Your task to perform on an android device: View the shopping cart on amazon.com. Search for panasonic triple a on amazon.com, select the first entry, and add it to the cart. Image 0: 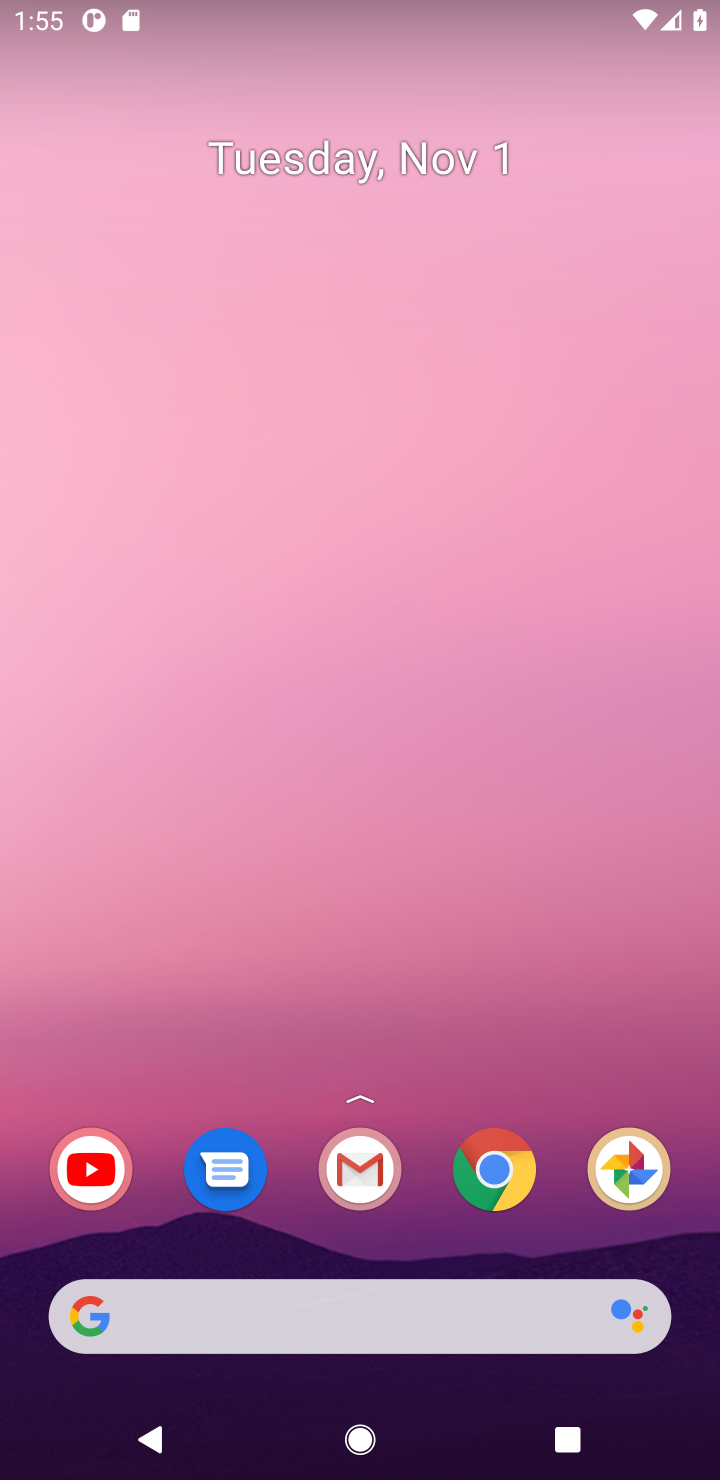
Step 0: press home button
Your task to perform on an android device: View the shopping cart on amazon.com. Search for panasonic triple a on amazon.com, select the first entry, and add it to the cart. Image 1: 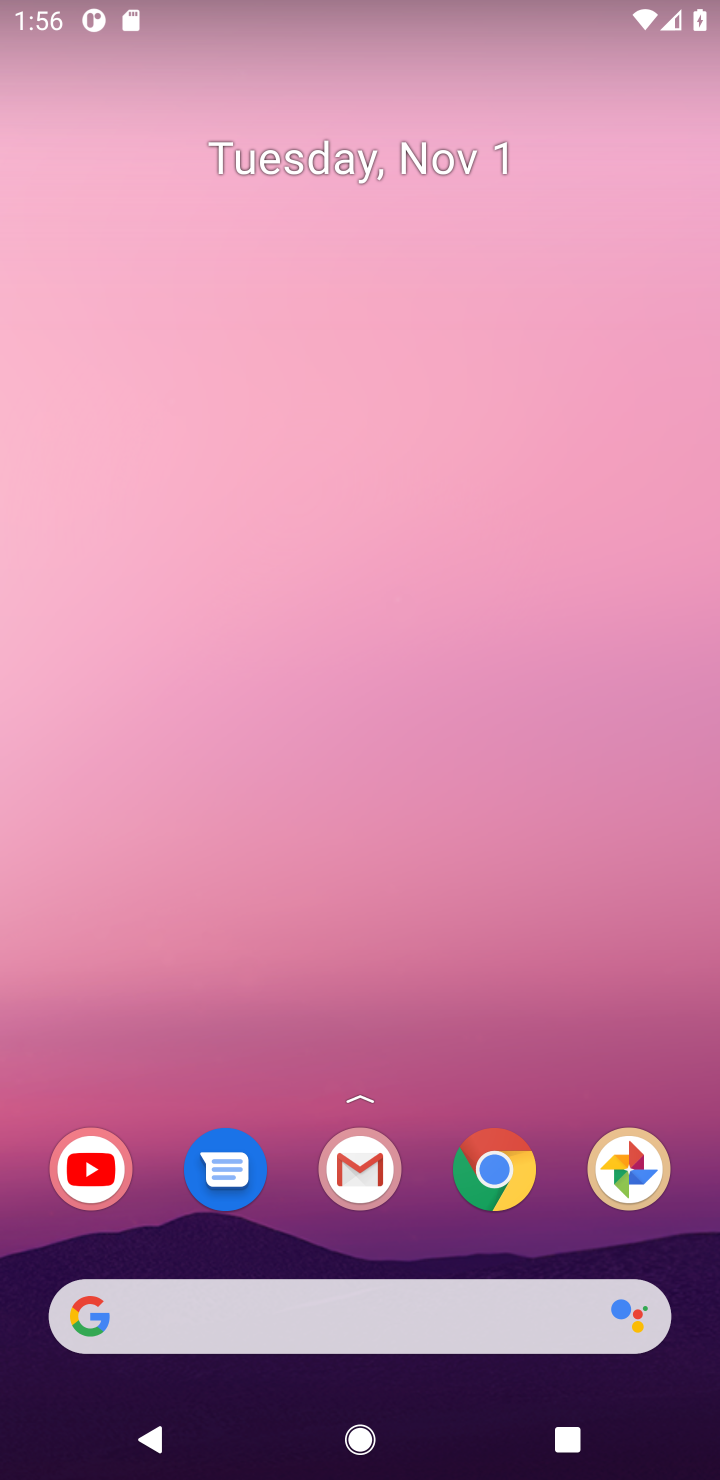
Step 1: drag from (438, 1099) to (422, 284)
Your task to perform on an android device: View the shopping cart on amazon.com. Search for panasonic triple a on amazon.com, select the first entry, and add it to the cart. Image 2: 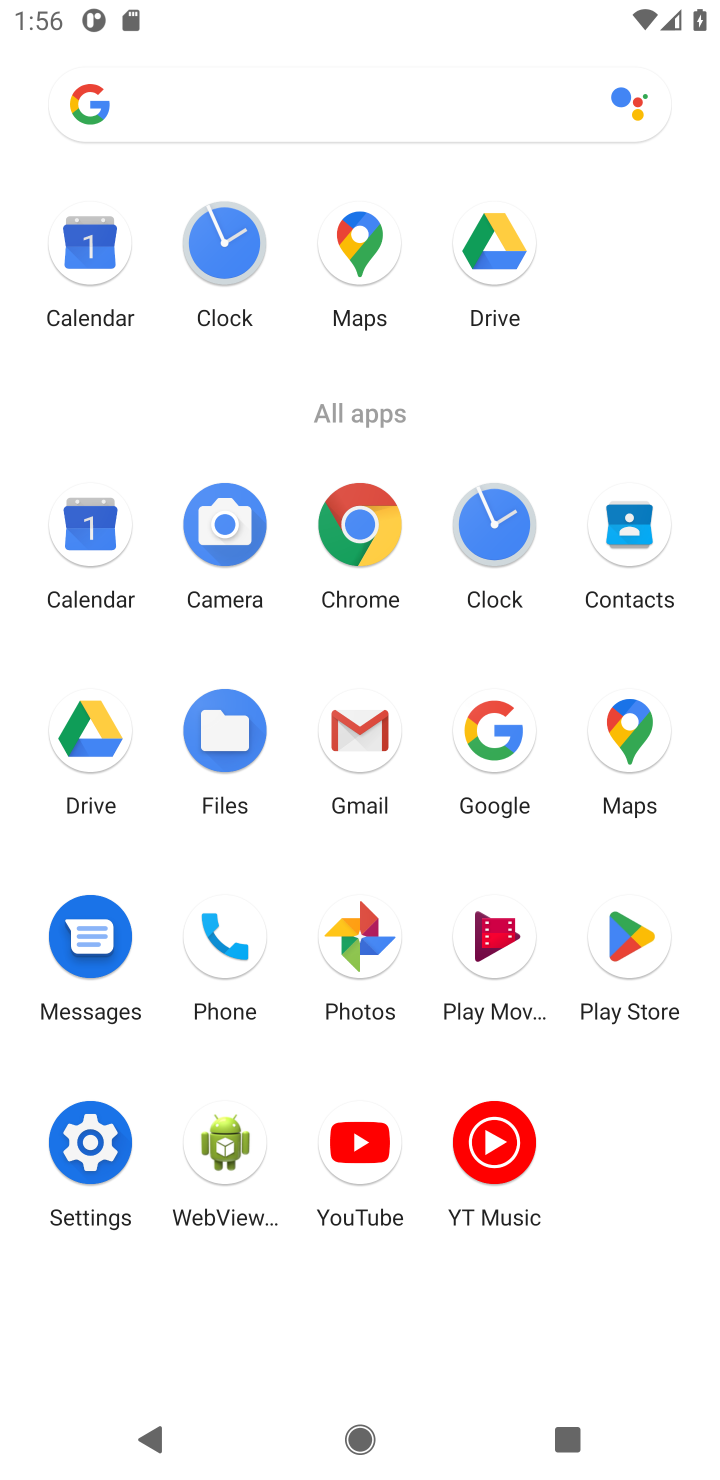
Step 2: click (352, 516)
Your task to perform on an android device: View the shopping cart on amazon.com. Search for panasonic triple a on amazon.com, select the first entry, and add it to the cart. Image 3: 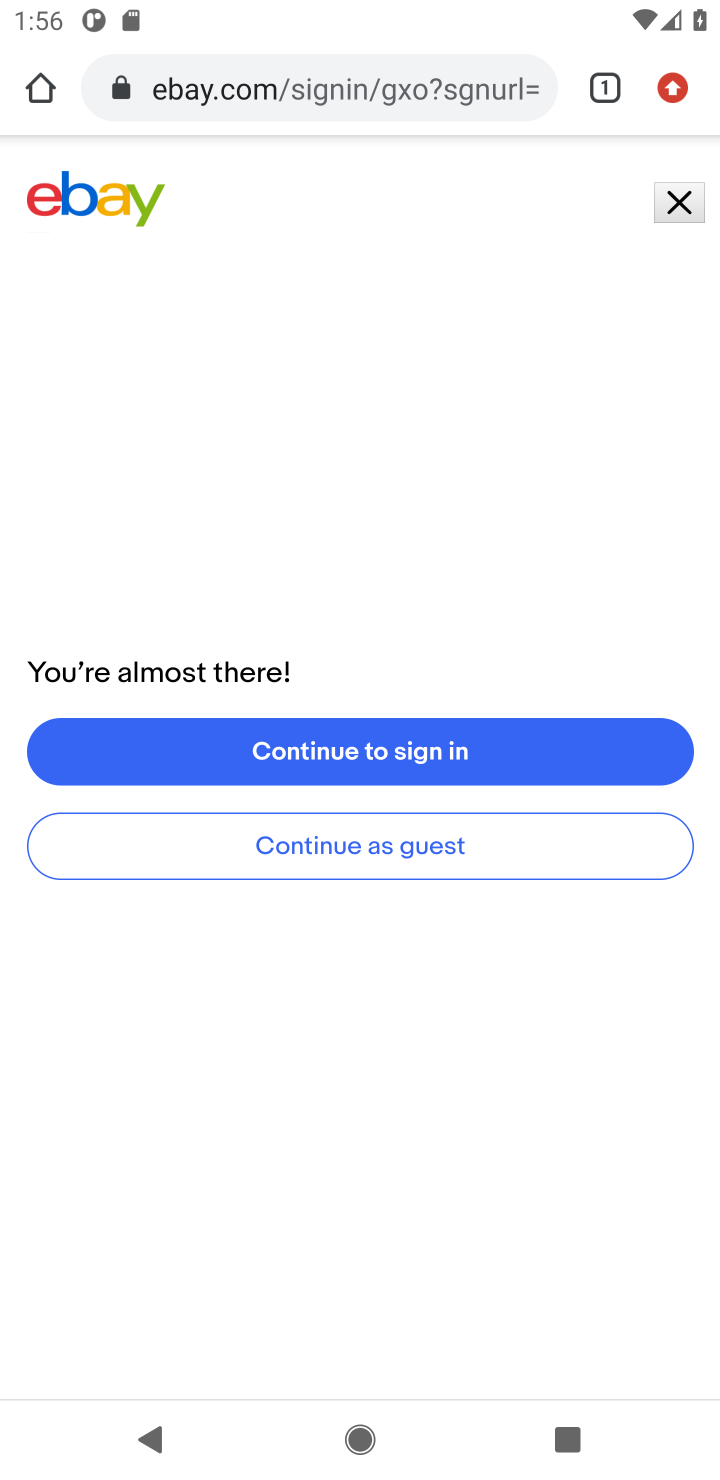
Step 3: click (222, 80)
Your task to perform on an android device: View the shopping cart on amazon.com. Search for panasonic triple a on amazon.com, select the first entry, and add it to the cart. Image 4: 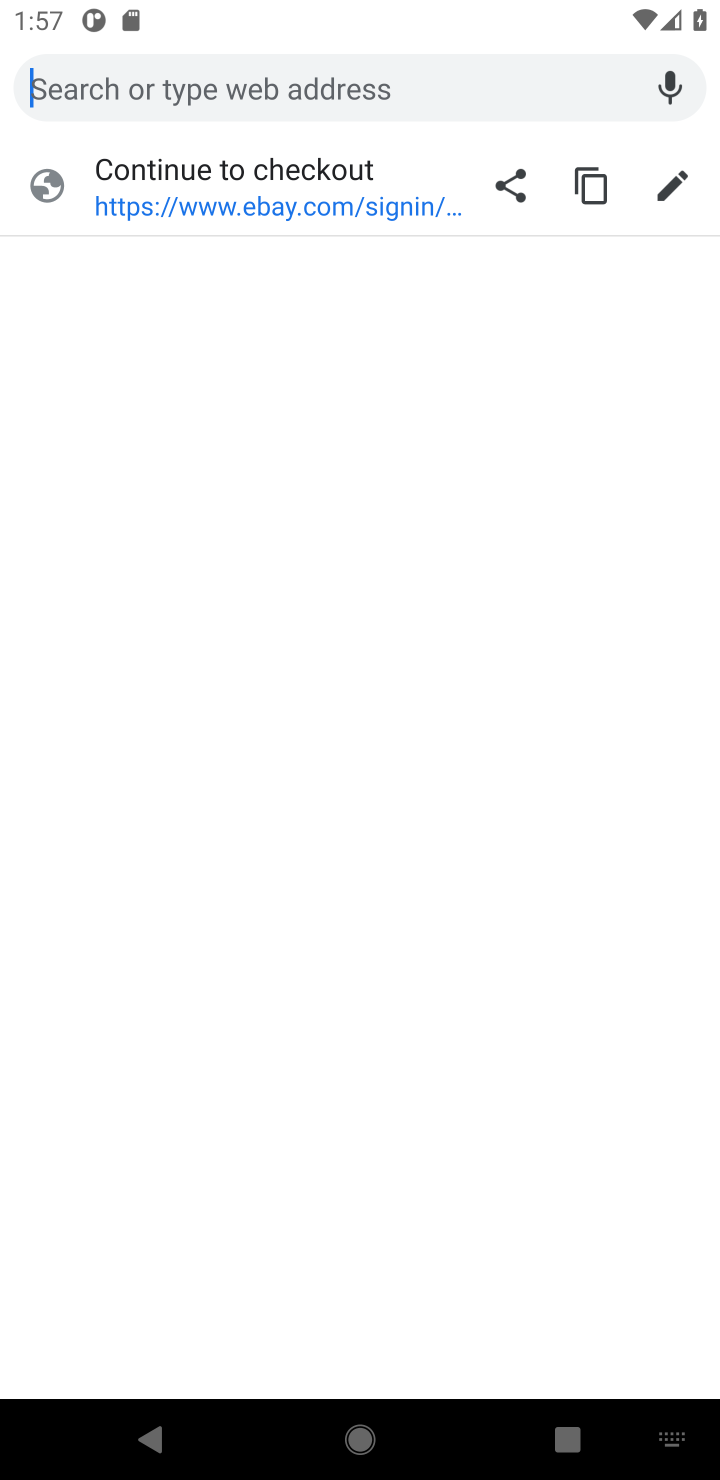
Step 4: type "amazon"
Your task to perform on an android device: View the shopping cart on amazon.com. Search for panasonic triple a on amazon.com, select the first entry, and add it to the cart. Image 5: 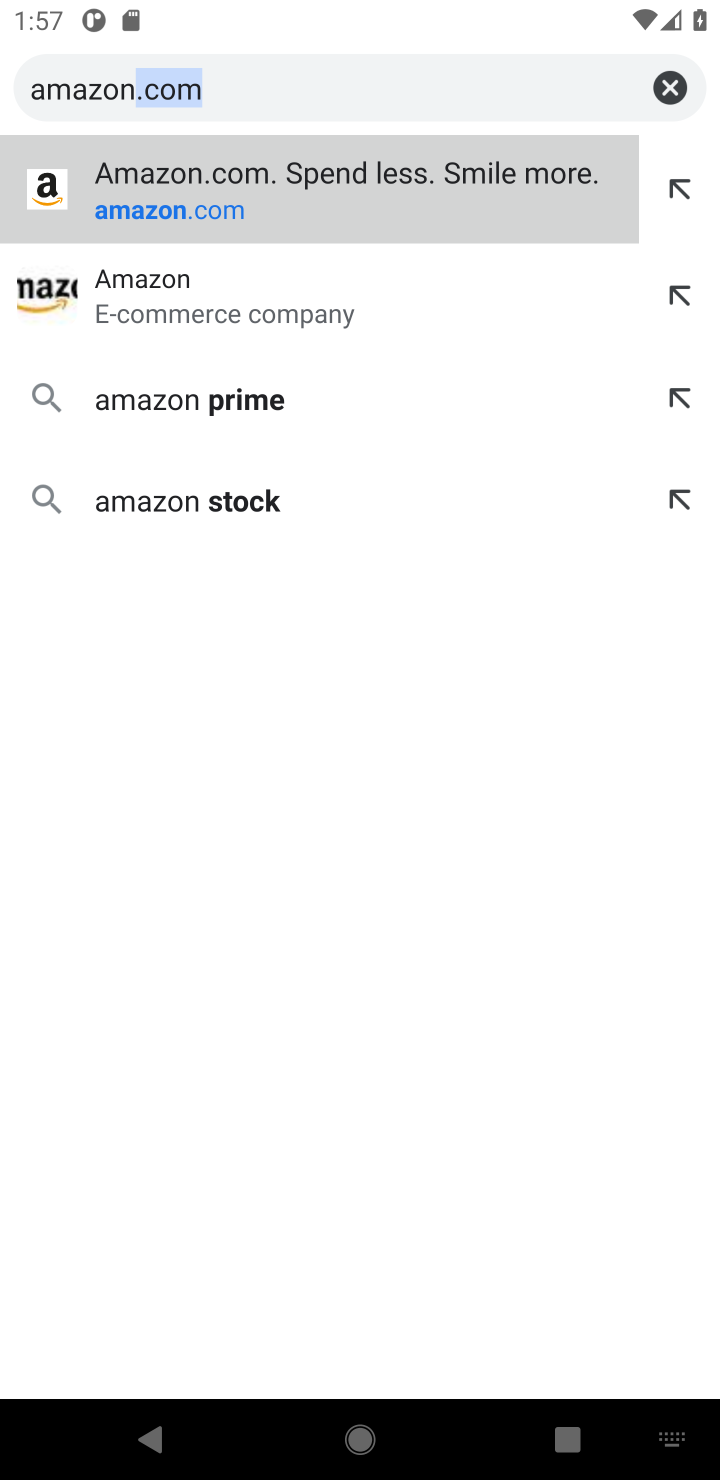
Step 5: click (161, 290)
Your task to perform on an android device: View the shopping cart on amazon.com. Search for panasonic triple a on amazon.com, select the first entry, and add it to the cart. Image 6: 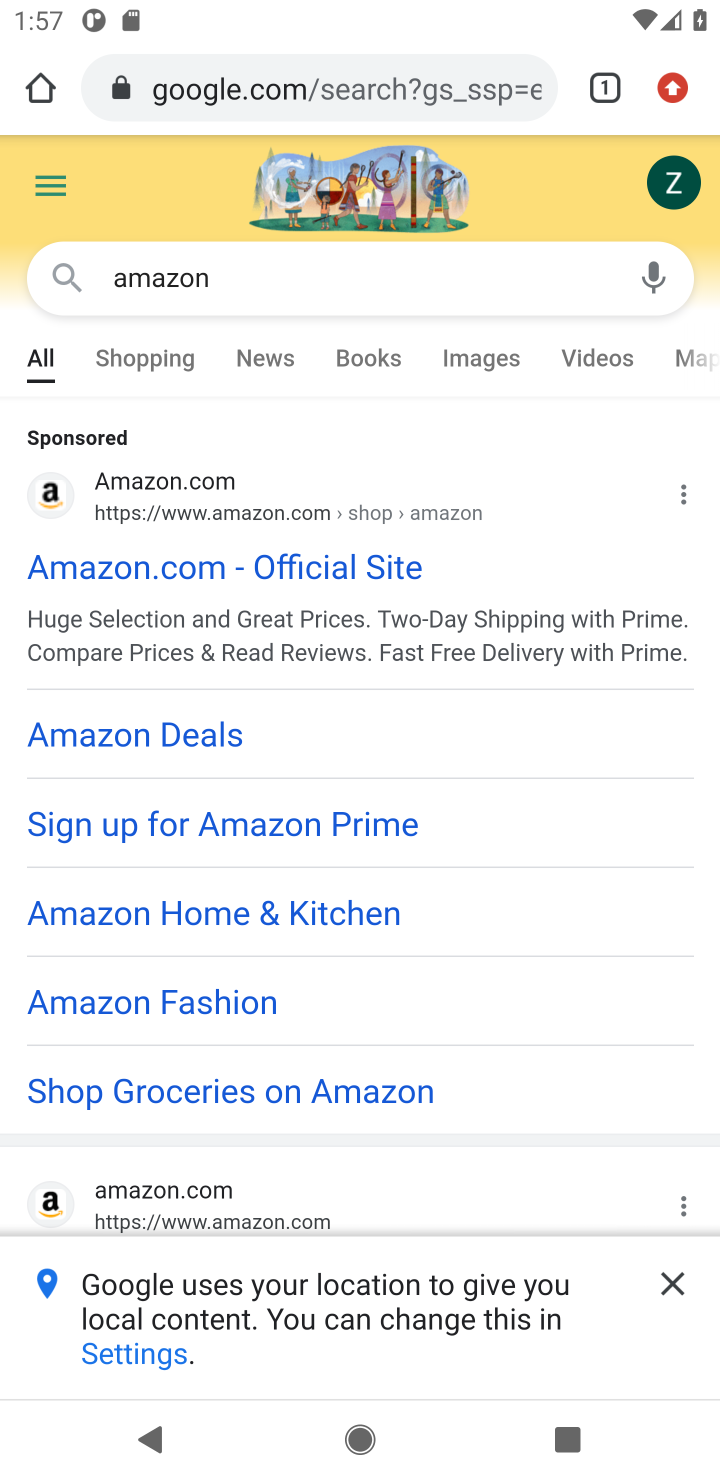
Step 6: click (172, 571)
Your task to perform on an android device: View the shopping cart on amazon.com. Search for panasonic triple a on amazon.com, select the first entry, and add it to the cart. Image 7: 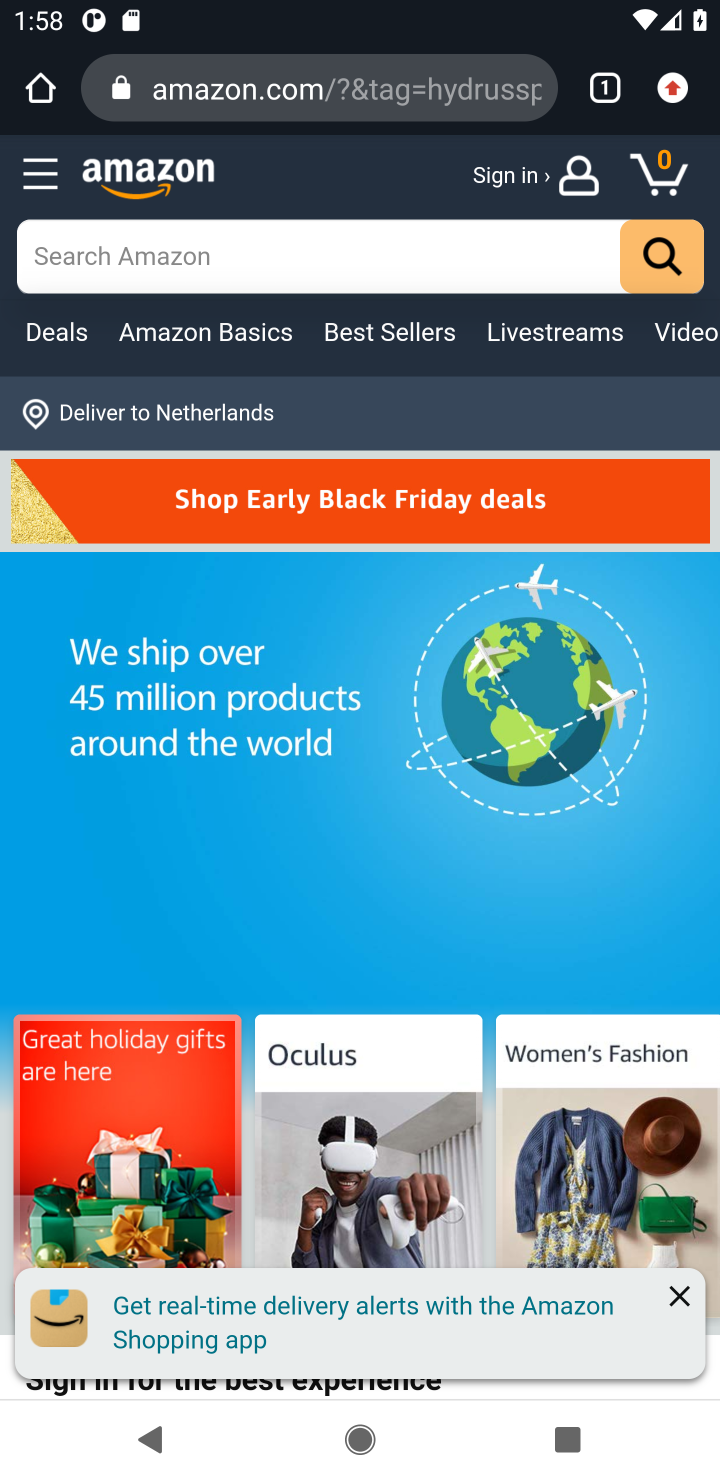
Step 7: click (209, 253)
Your task to perform on an android device: View the shopping cart on amazon.com. Search for panasonic triple a on amazon.com, select the first entry, and add it to the cart. Image 8: 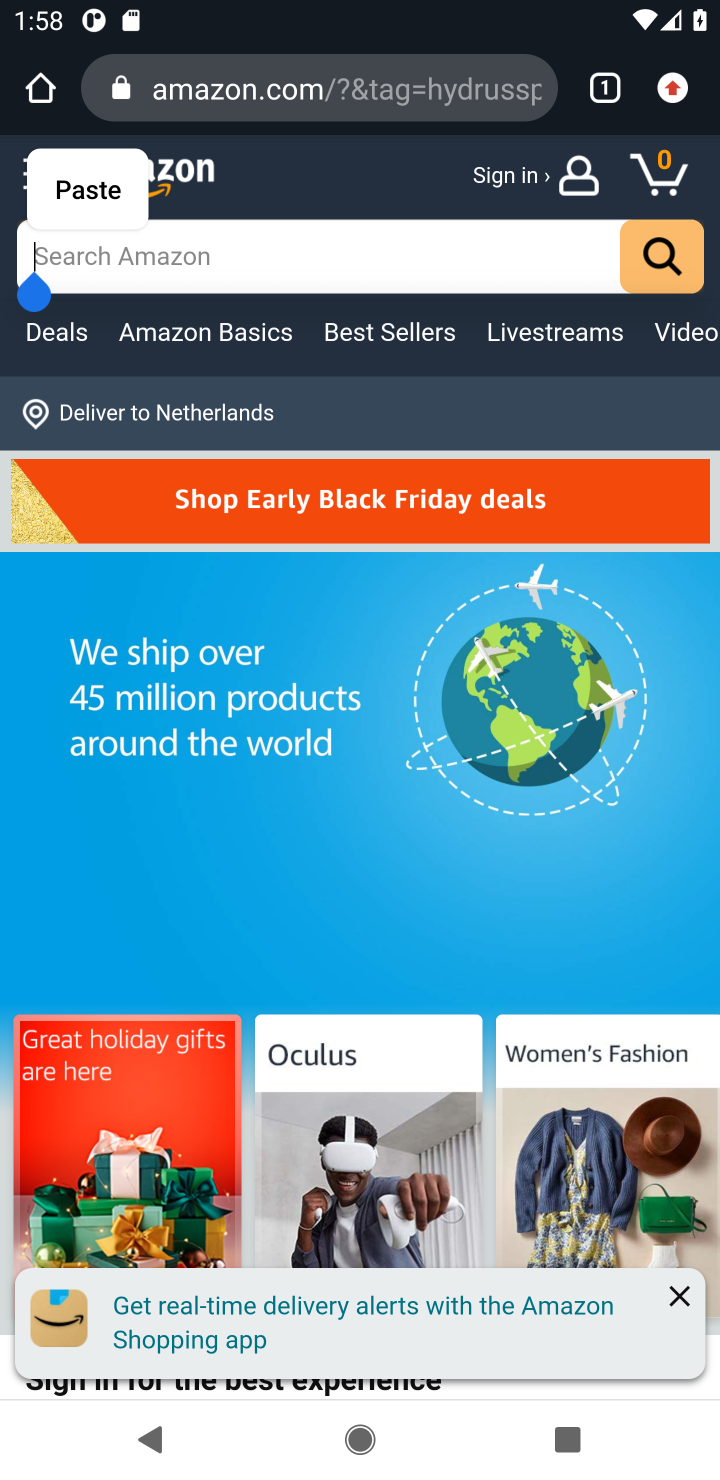
Step 8: type "panasonic triple a"
Your task to perform on an android device: View the shopping cart on amazon.com. Search for panasonic triple a on amazon.com, select the first entry, and add it to the cart. Image 9: 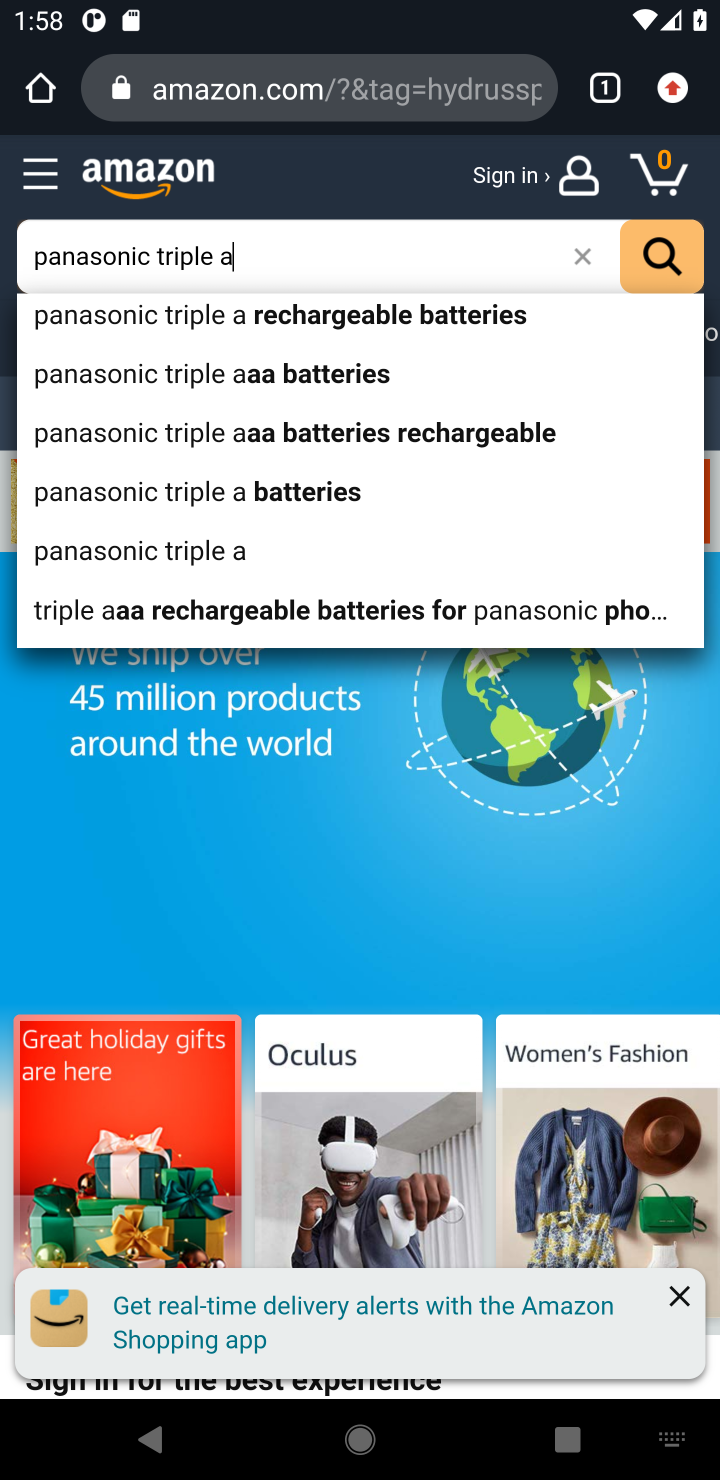
Step 9: click (245, 324)
Your task to perform on an android device: View the shopping cart on amazon.com. Search for panasonic triple a on amazon.com, select the first entry, and add it to the cart. Image 10: 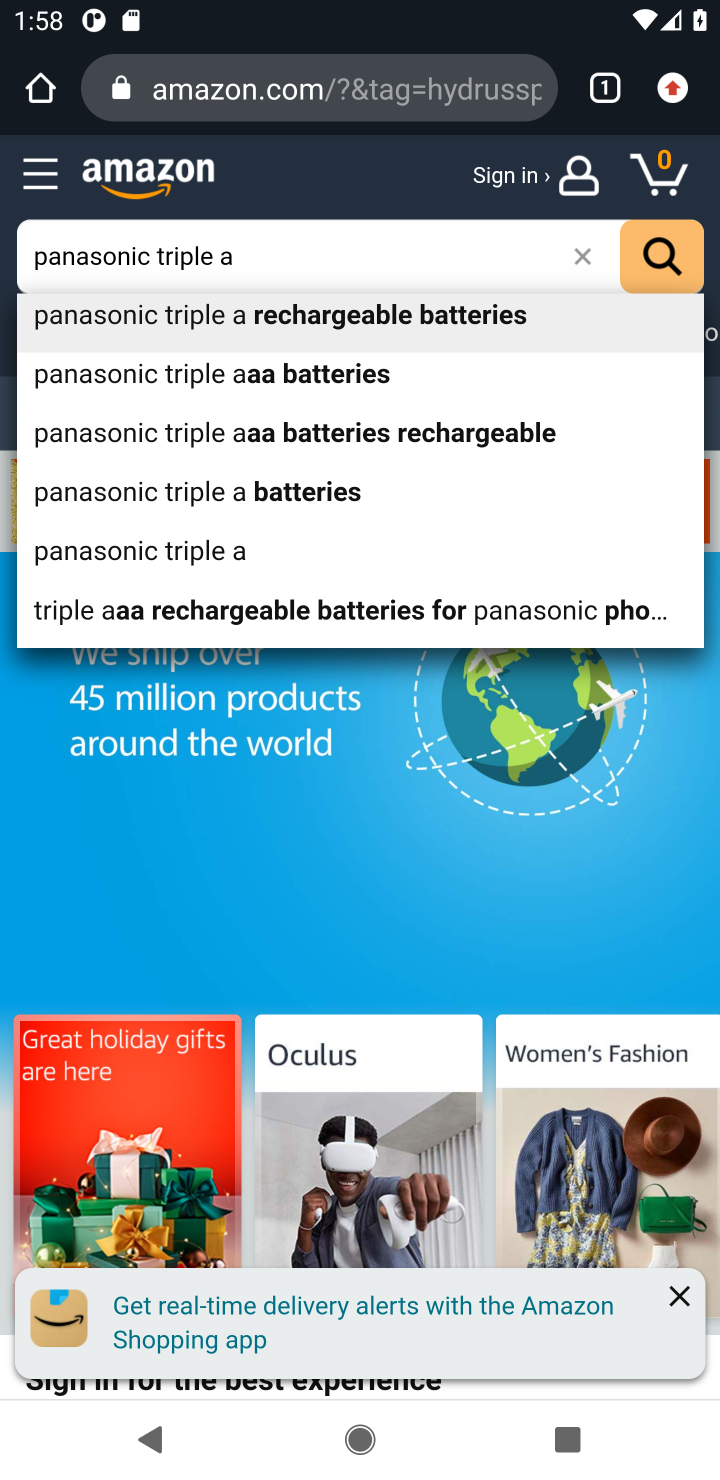
Step 10: click (193, 314)
Your task to perform on an android device: View the shopping cart on amazon.com. Search for panasonic triple a on amazon.com, select the first entry, and add it to the cart. Image 11: 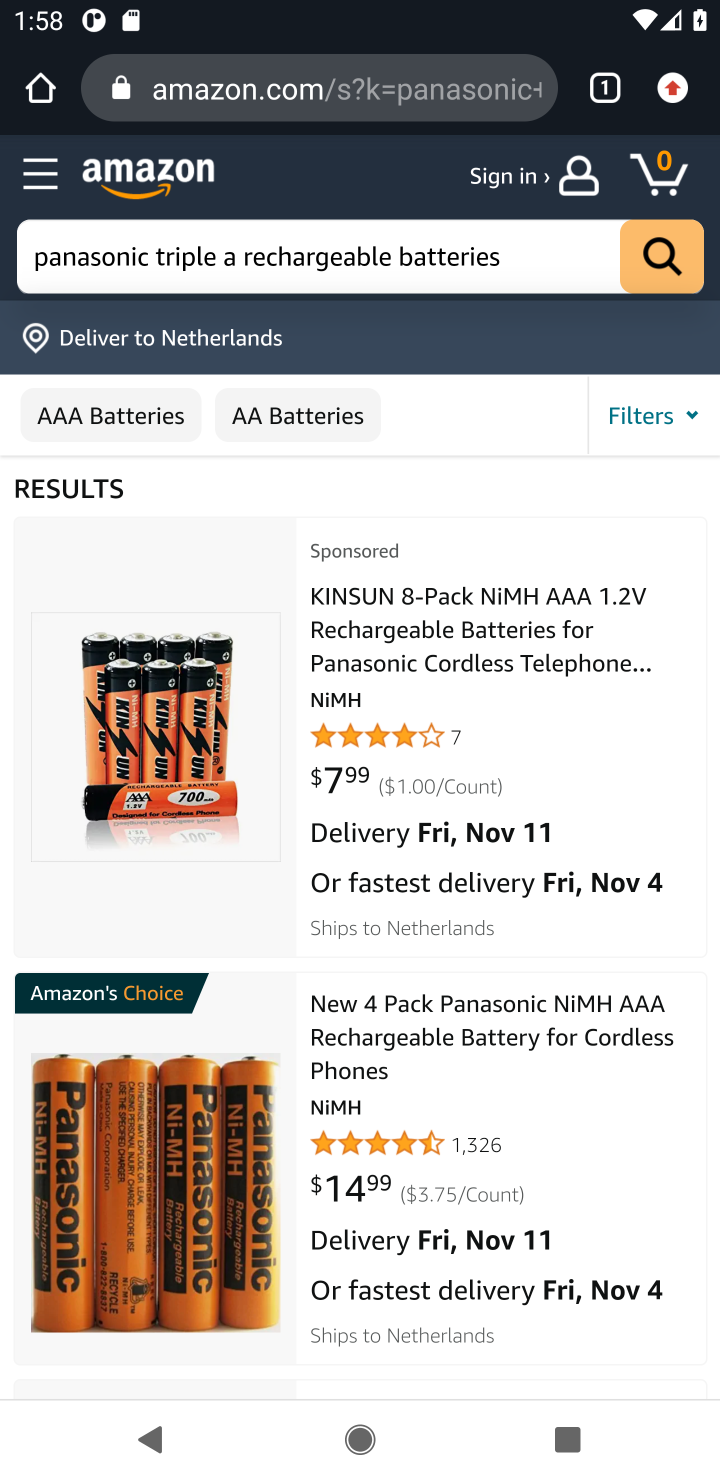
Step 11: click (405, 623)
Your task to perform on an android device: View the shopping cart on amazon.com. Search for panasonic triple a on amazon.com, select the first entry, and add it to the cart. Image 12: 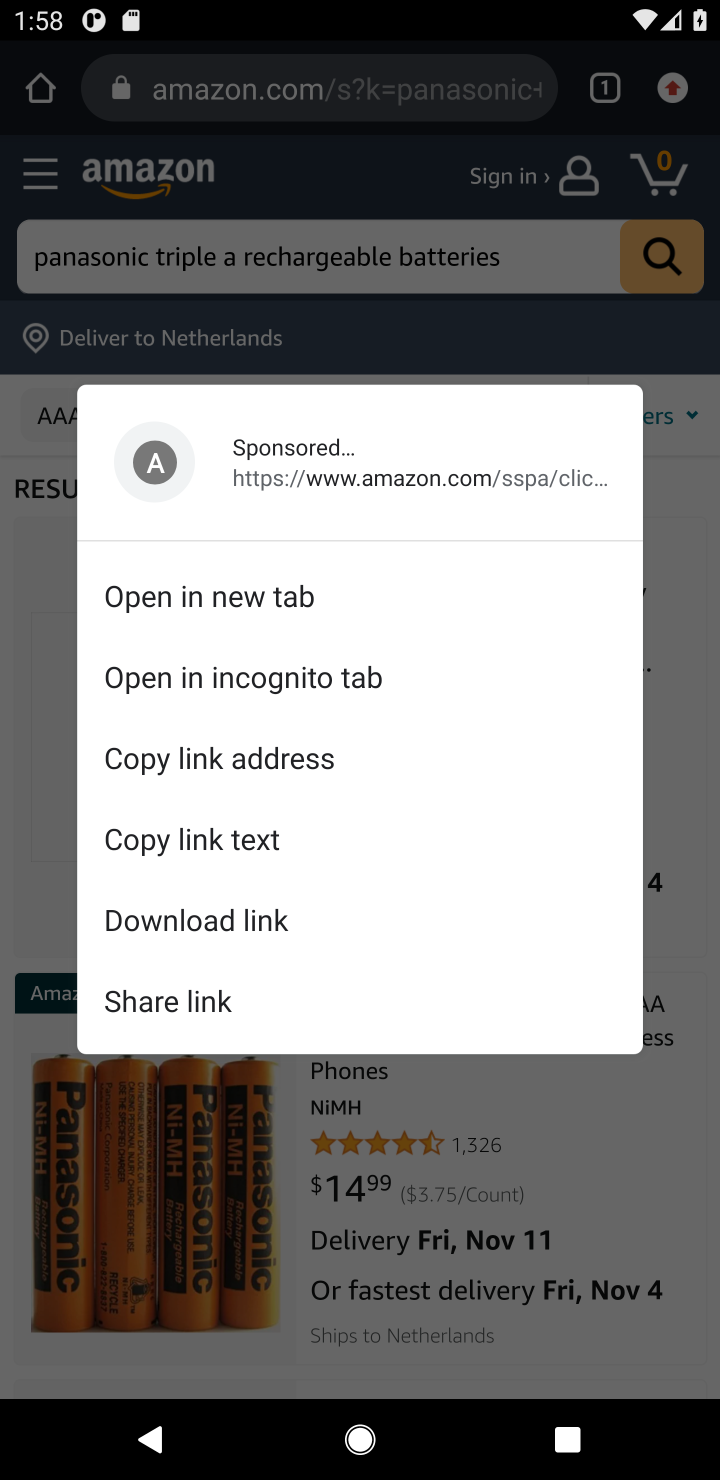
Step 12: click (29, 820)
Your task to perform on an android device: View the shopping cart on amazon.com. Search for panasonic triple a on amazon.com, select the first entry, and add it to the cart. Image 13: 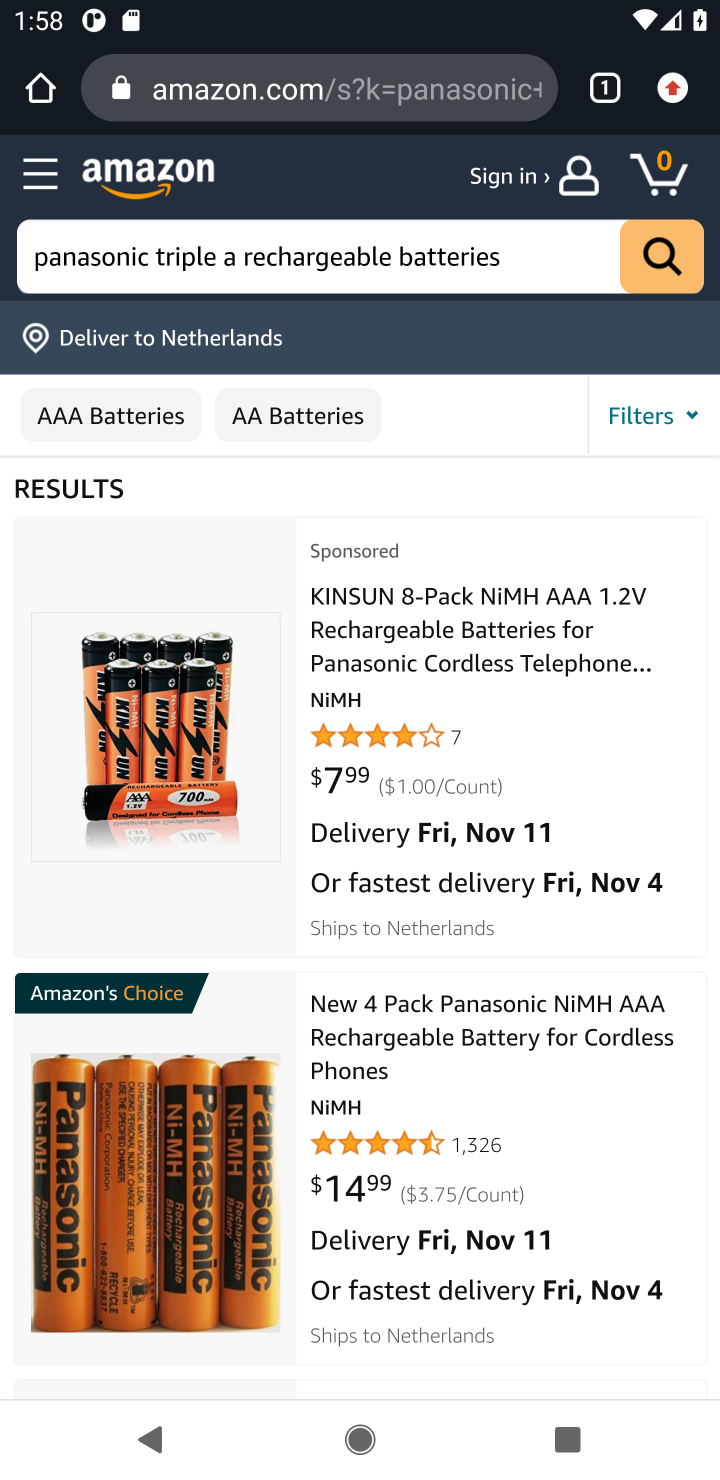
Step 13: drag from (293, 1279) to (337, 561)
Your task to perform on an android device: View the shopping cart on amazon.com. Search for panasonic triple a on amazon.com, select the first entry, and add it to the cart. Image 14: 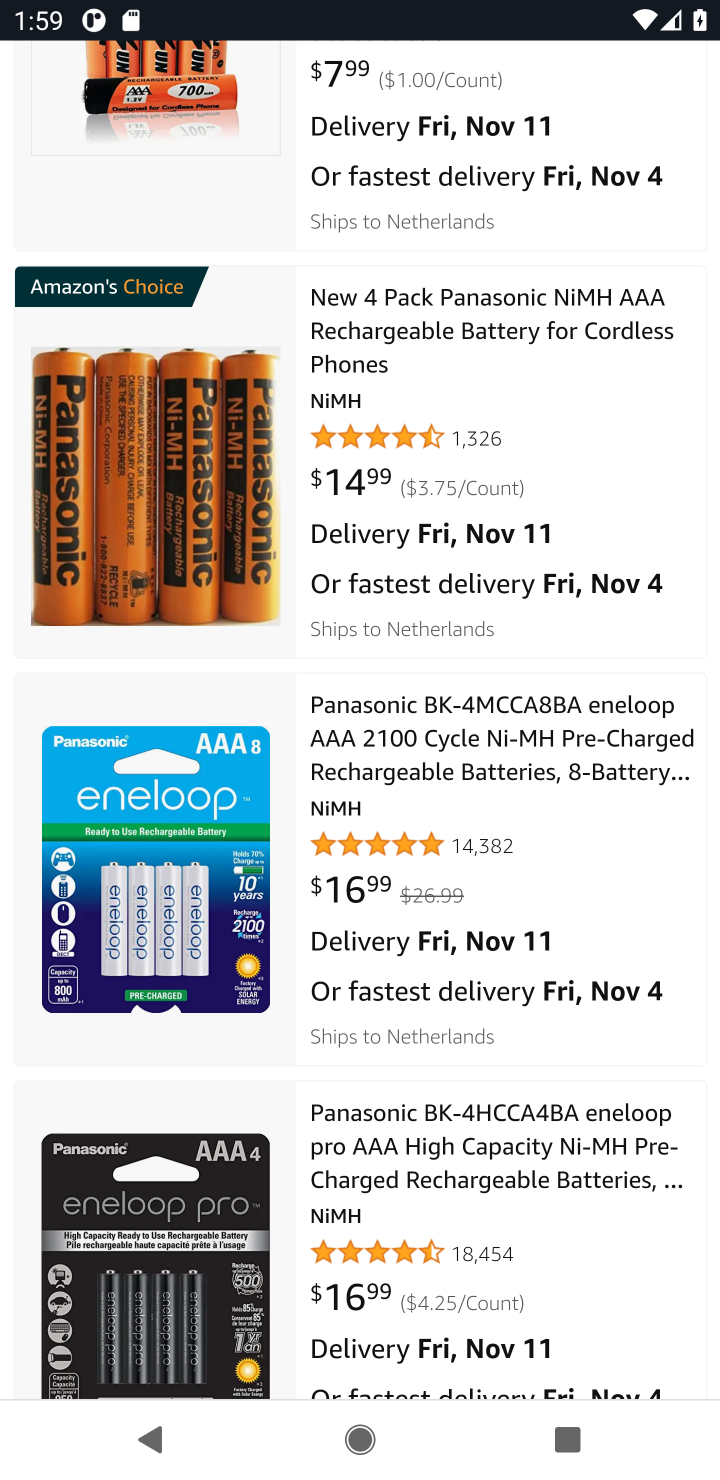
Step 14: click (355, 767)
Your task to perform on an android device: View the shopping cart on amazon.com. Search for panasonic triple a on amazon.com, select the first entry, and add it to the cart. Image 15: 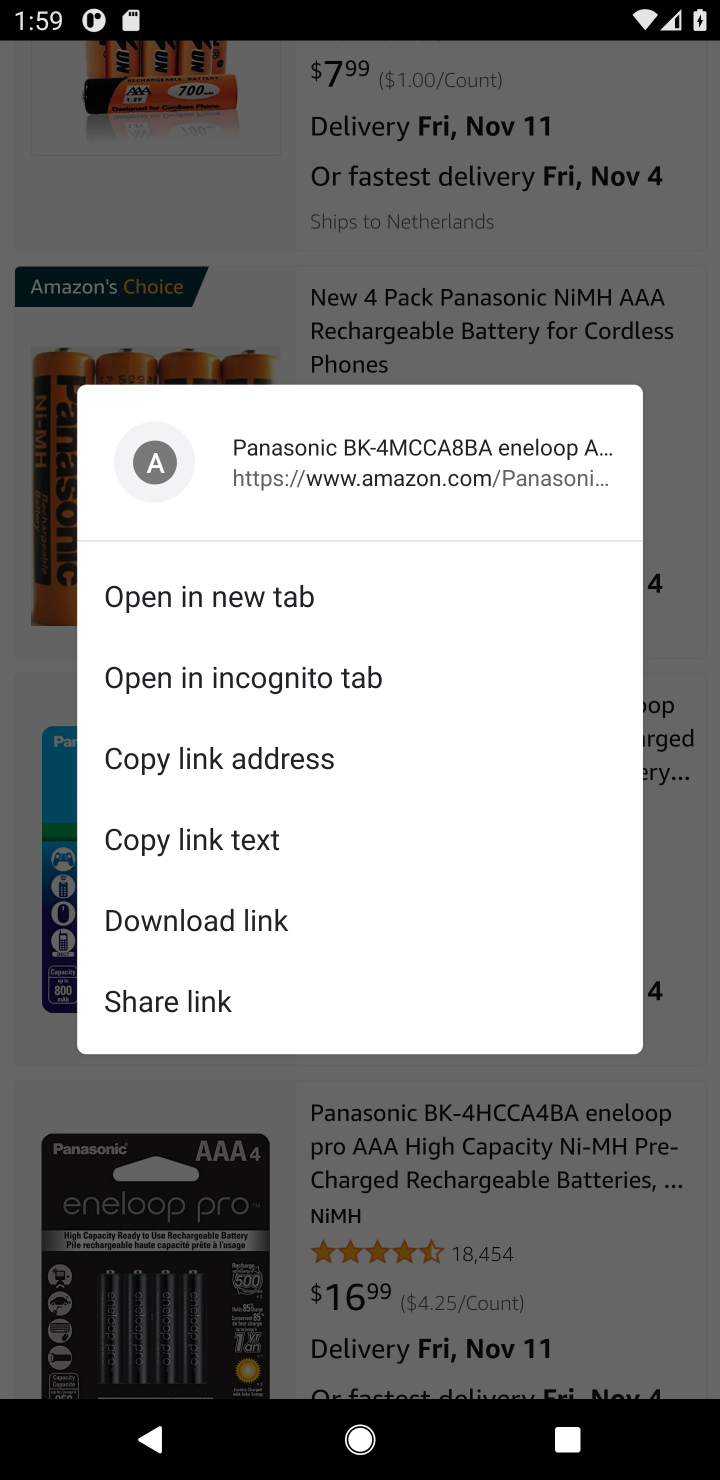
Step 15: click (43, 815)
Your task to perform on an android device: View the shopping cart on amazon.com. Search for panasonic triple a on amazon.com, select the first entry, and add it to the cart. Image 16: 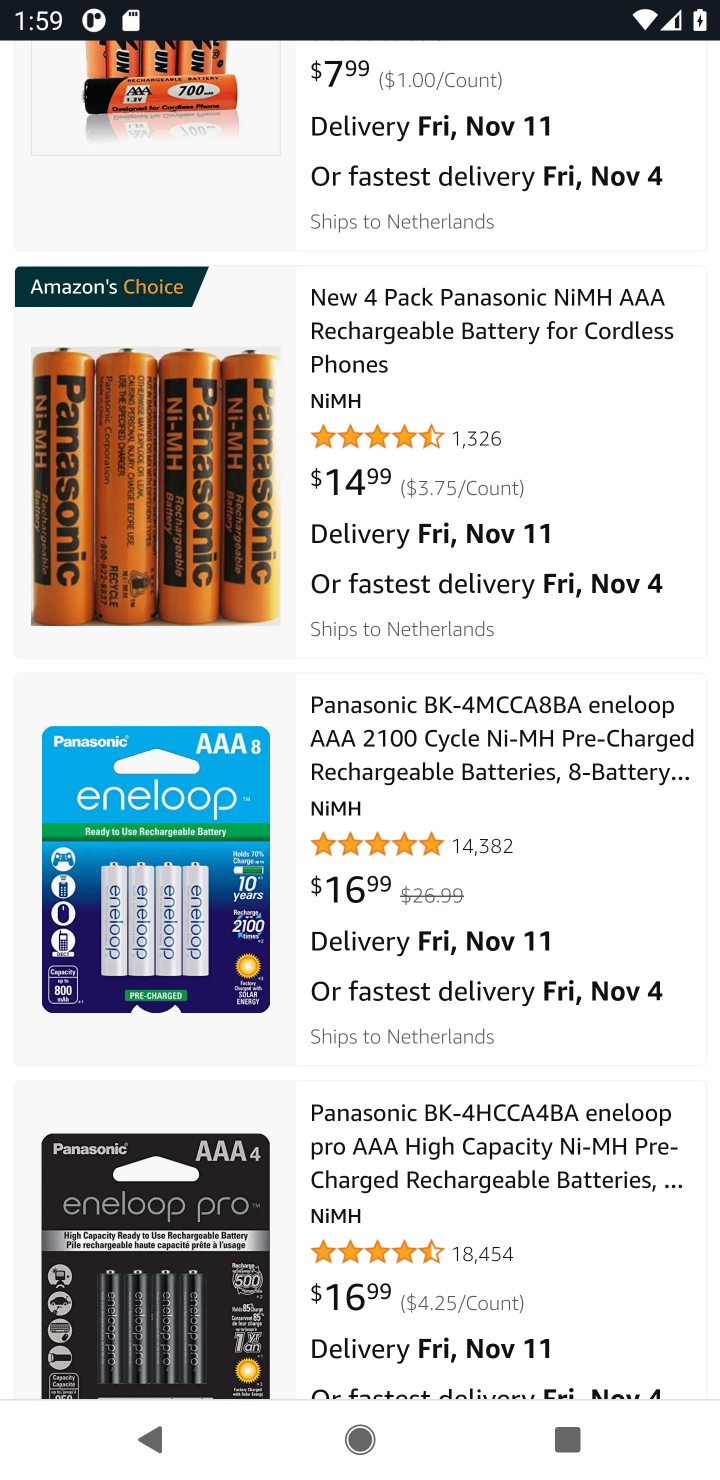
Step 16: click (166, 833)
Your task to perform on an android device: View the shopping cart on amazon.com. Search for panasonic triple a on amazon.com, select the first entry, and add it to the cart. Image 17: 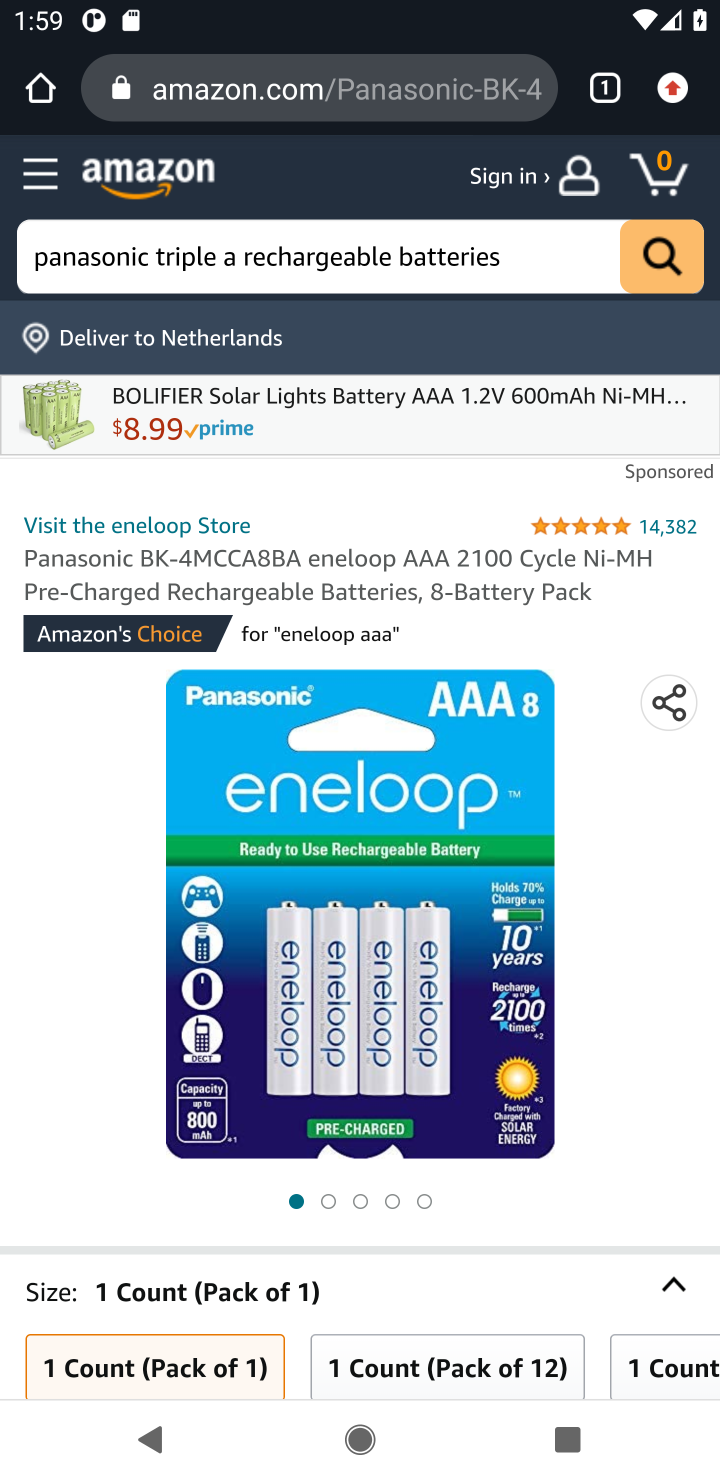
Step 17: drag from (387, 1016) to (384, 519)
Your task to perform on an android device: View the shopping cart on amazon.com. Search for panasonic triple a on amazon.com, select the first entry, and add it to the cart. Image 18: 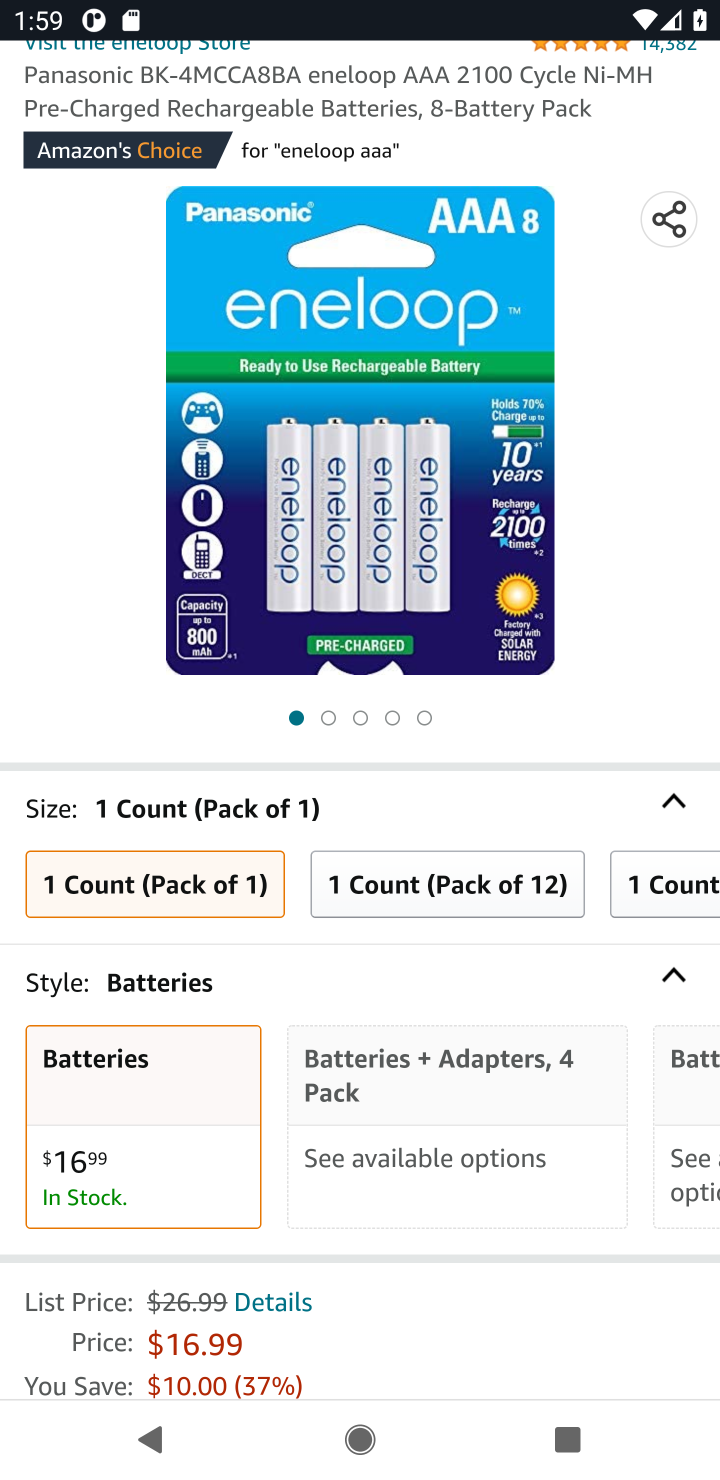
Step 18: drag from (377, 1203) to (389, 882)
Your task to perform on an android device: View the shopping cart on amazon.com. Search for panasonic triple a on amazon.com, select the first entry, and add it to the cart. Image 19: 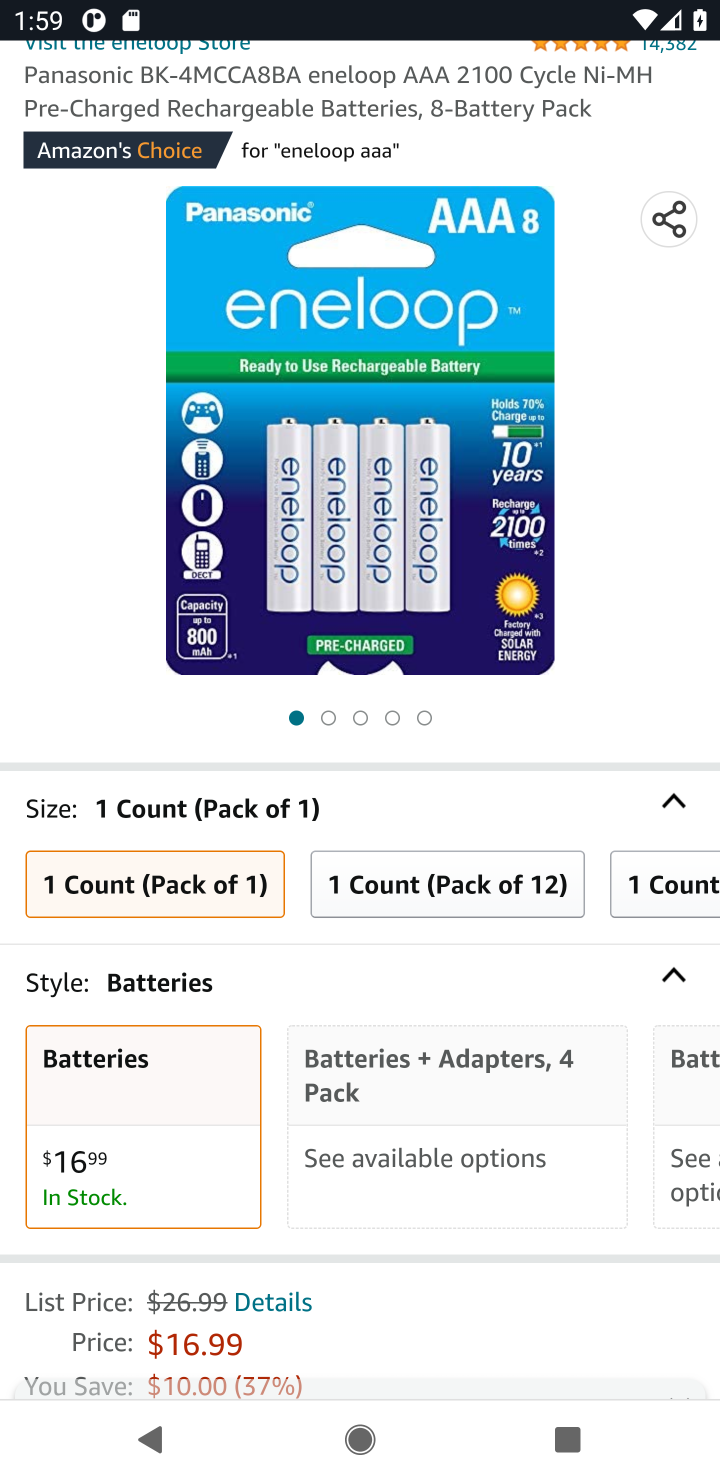
Step 19: click (411, 550)
Your task to perform on an android device: View the shopping cart on amazon.com. Search for panasonic triple a on amazon.com, select the first entry, and add it to the cart. Image 20: 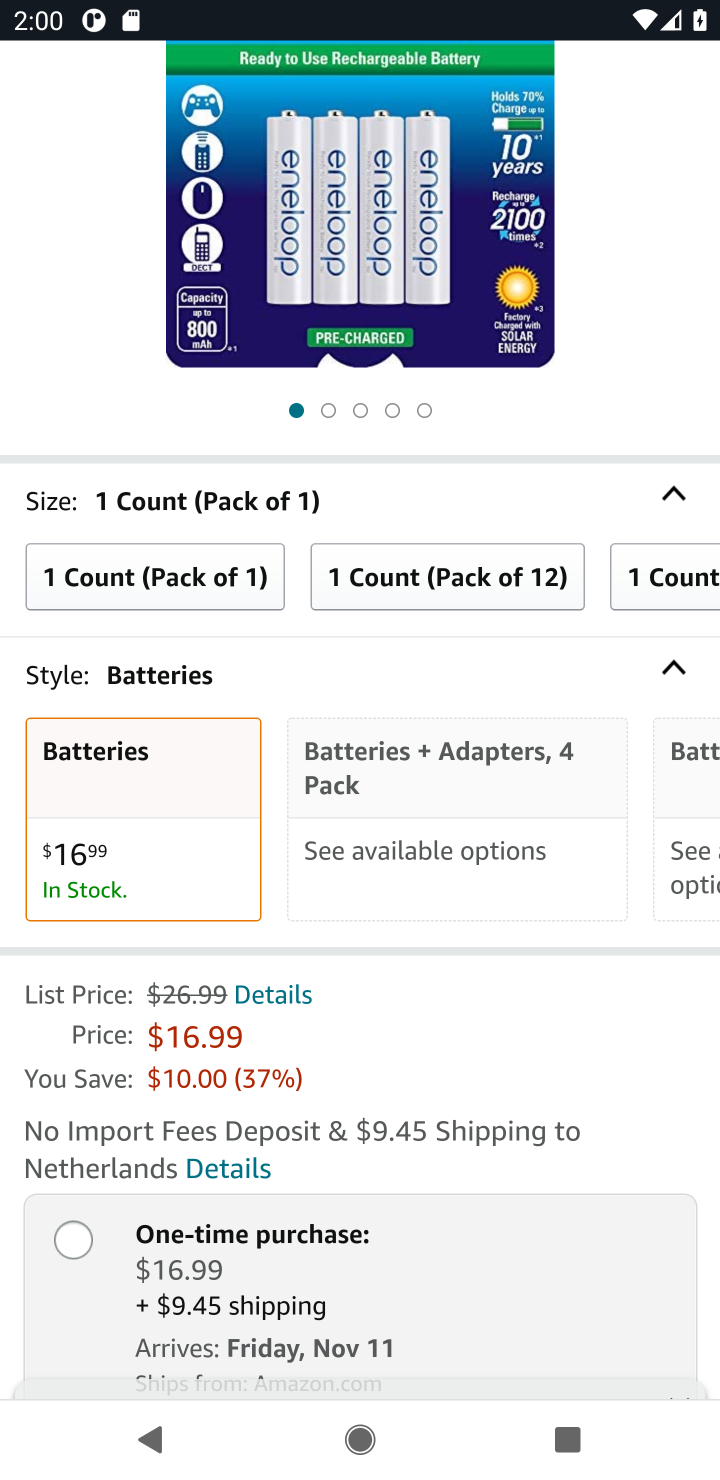
Step 20: drag from (437, 1031) to (501, 495)
Your task to perform on an android device: View the shopping cart on amazon.com. Search for panasonic triple a on amazon.com, select the first entry, and add it to the cart. Image 21: 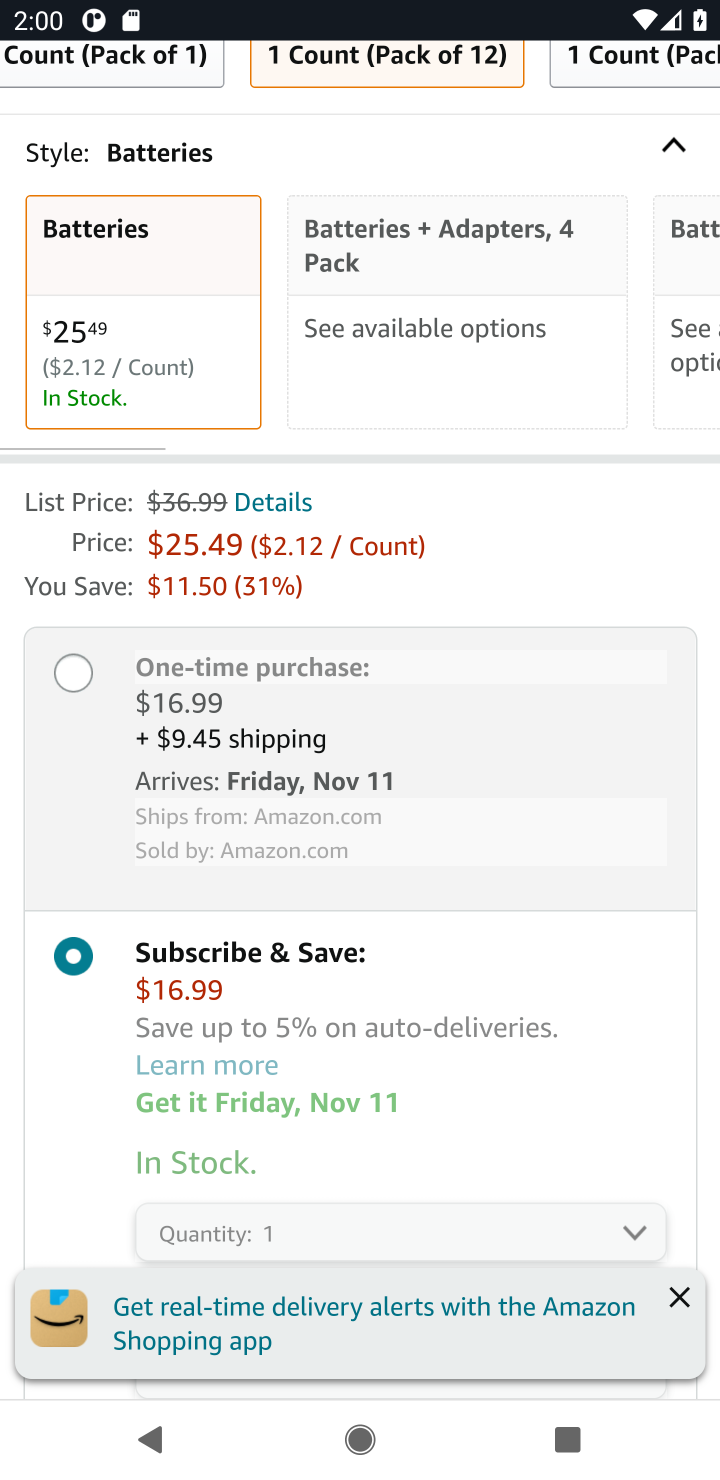
Step 21: drag from (412, 1272) to (480, 634)
Your task to perform on an android device: View the shopping cart on amazon.com. Search for panasonic triple a on amazon.com, select the first entry, and add it to the cart. Image 22: 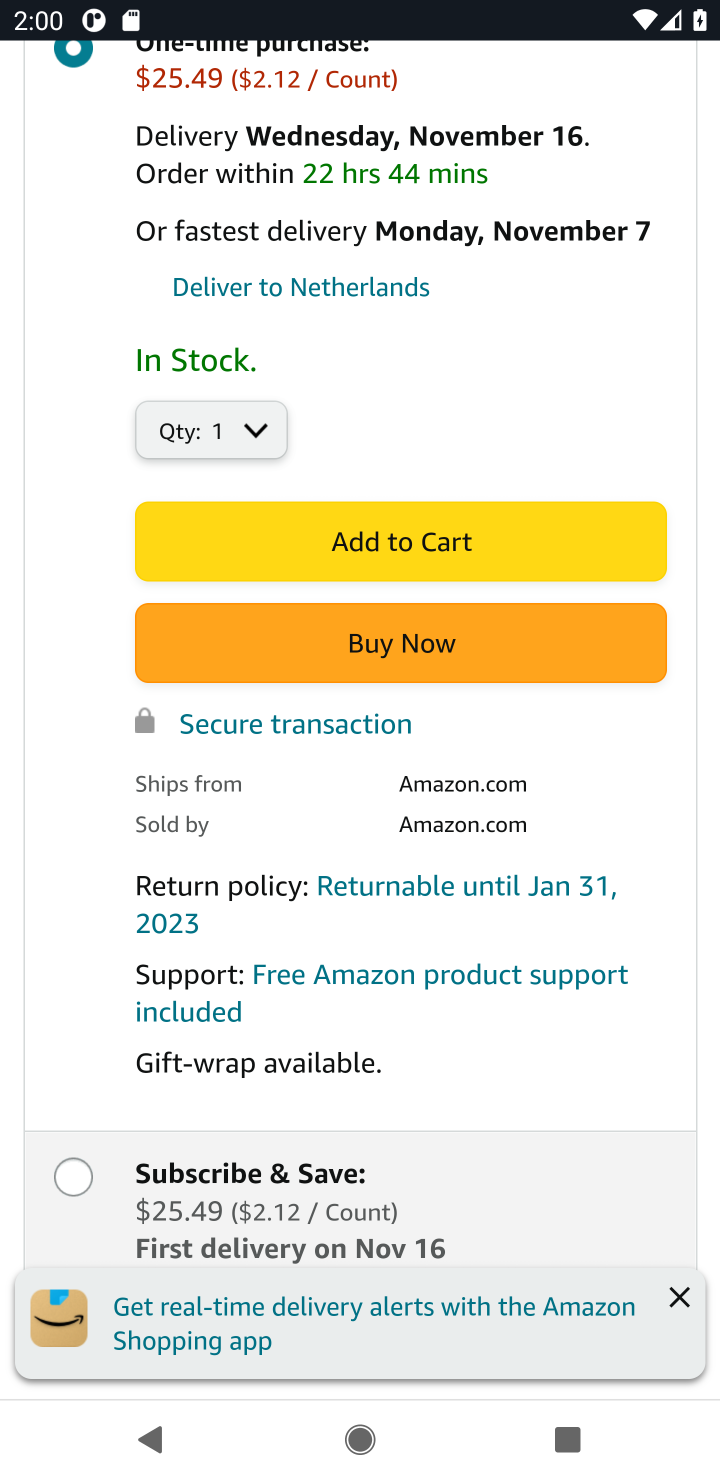
Step 22: click (387, 535)
Your task to perform on an android device: View the shopping cart on amazon.com. Search for panasonic triple a on amazon.com, select the first entry, and add it to the cart. Image 23: 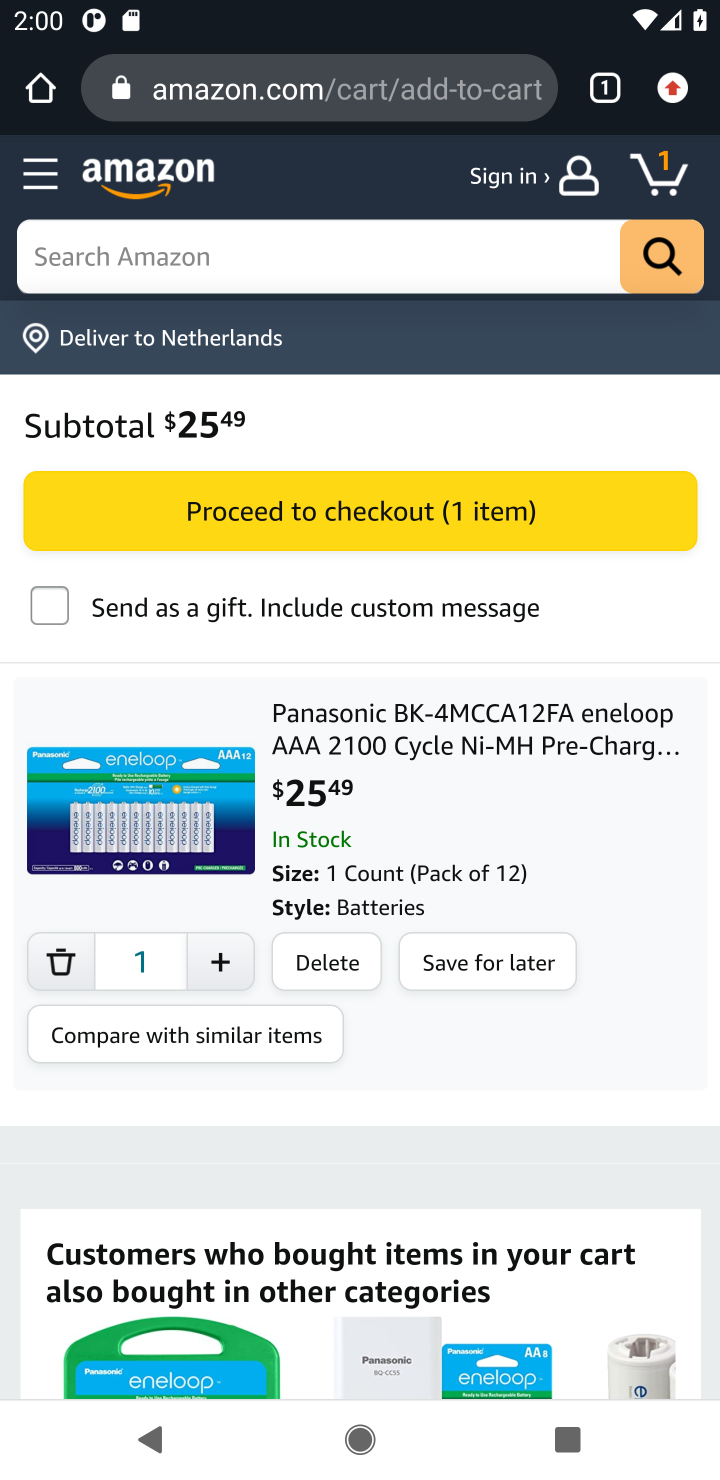
Step 23: task complete